Your task to perform on an android device: Go to settings Image 0: 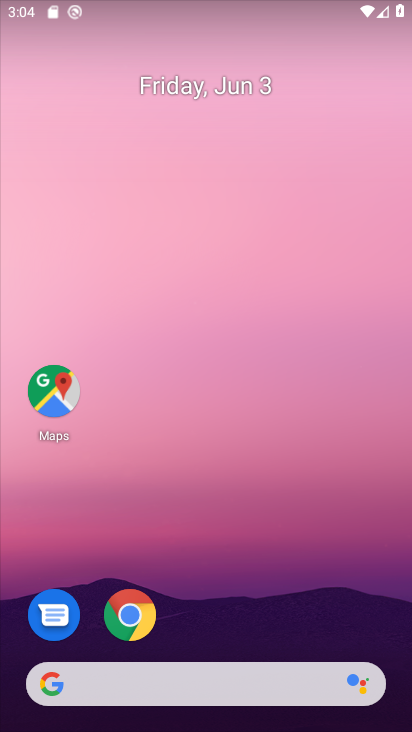
Step 0: drag from (242, 617) to (200, 162)
Your task to perform on an android device: Go to settings Image 1: 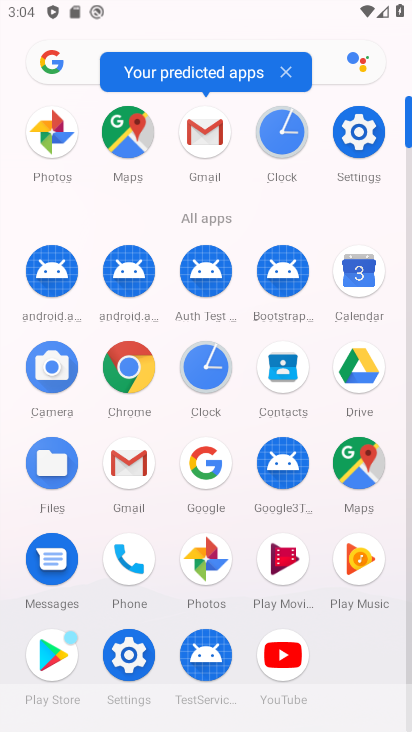
Step 1: click (362, 136)
Your task to perform on an android device: Go to settings Image 2: 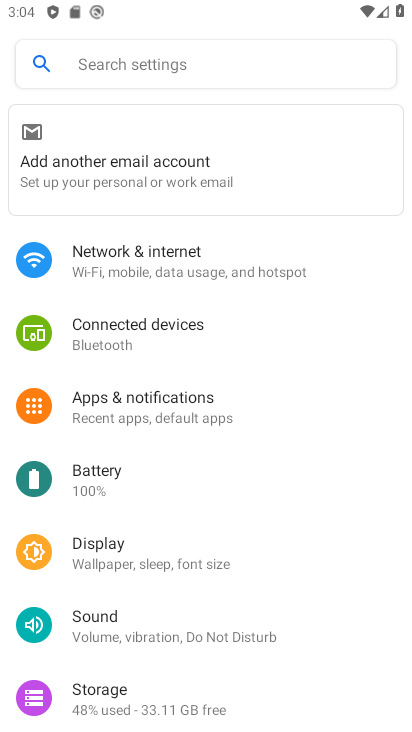
Step 2: task complete